Your task to perform on an android device: Check the settings for the Google Play Store app Image 0: 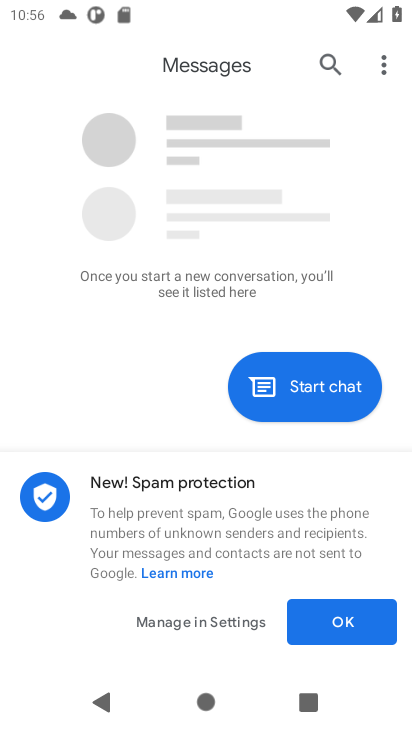
Step 0: press home button
Your task to perform on an android device: Check the settings for the Google Play Store app Image 1: 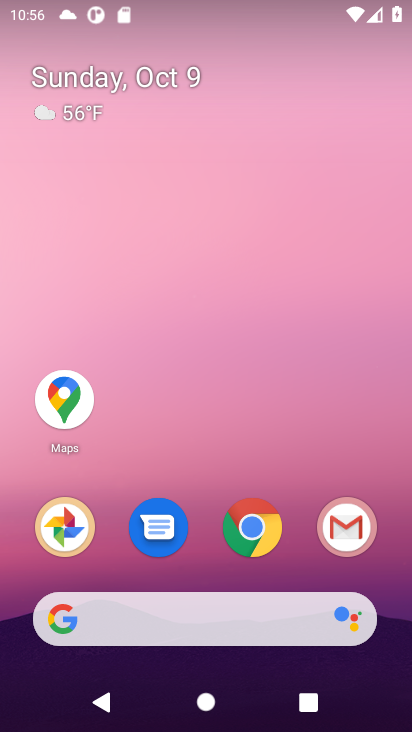
Step 1: drag from (194, 554) to (257, 13)
Your task to perform on an android device: Check the settings for the Google Play Store app Image 2: 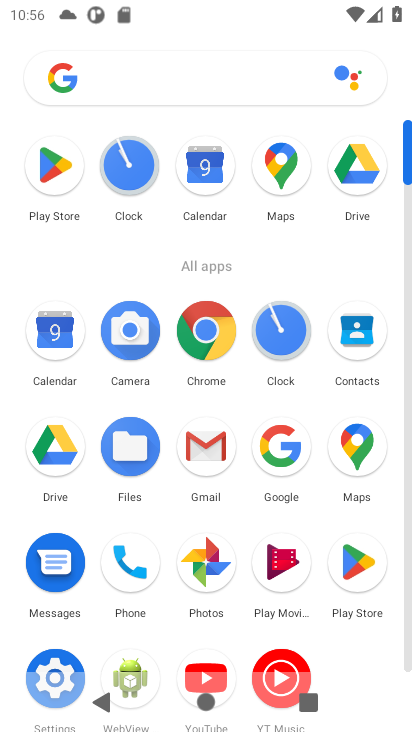
Step 2: click (59, 171)
Your task to perform on an android device: Check the settings for the Google Play Store app Image 3: 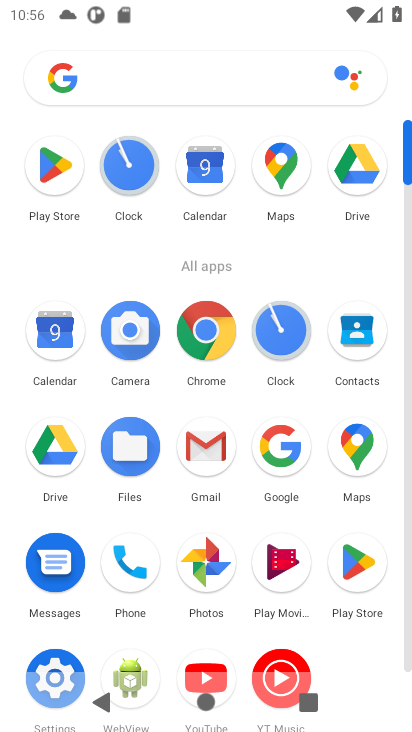
Step 3: click (51, 174)
Your task to perform on an android device: Check the settings for the Google Play Store app Image 4: 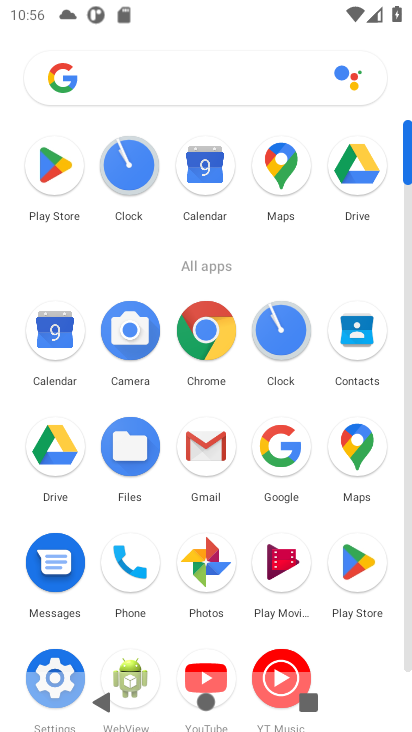
Step 4: click (51, 174)
Your task to perform on an android device: Check the settings for the Google Play Store app Image 5: 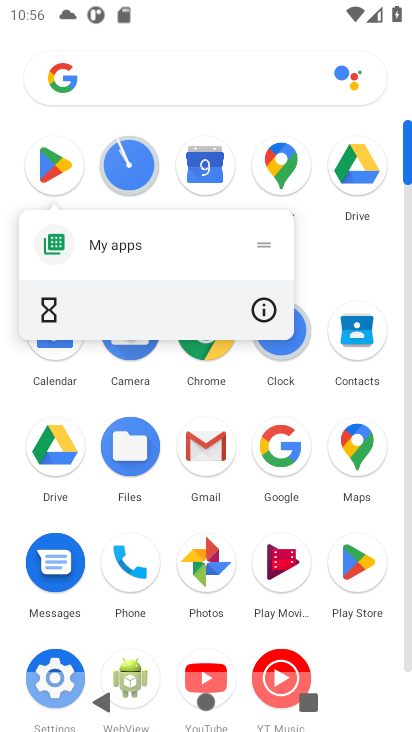
Step 5: click (260, 243)
Your task to perform on an android device: Check the settings for the Google Play Store app Image 6: 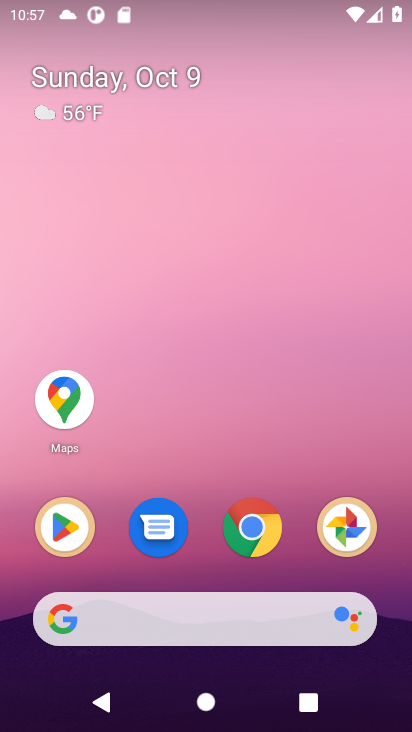
Step 6: click (64, 532)
Your task to perform on an android device: Check the settings for the Google Play Store app Image 7: 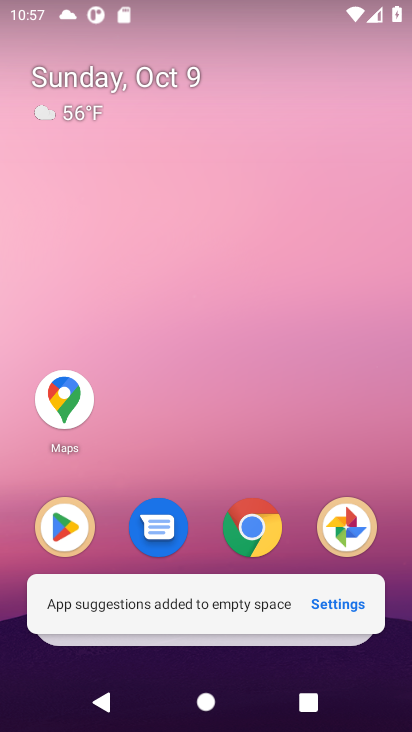
Step 7: click (357, 608)
Your task to perform on an android device: Check the settings for the Google Play Store app Image 8: 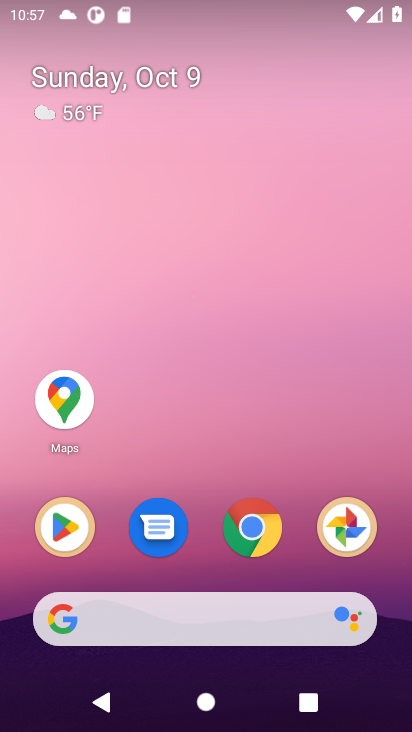
Step 8: click (71, 532)
Your task to perform on an android device: Check the settings for the Google Play Store app Image 9: 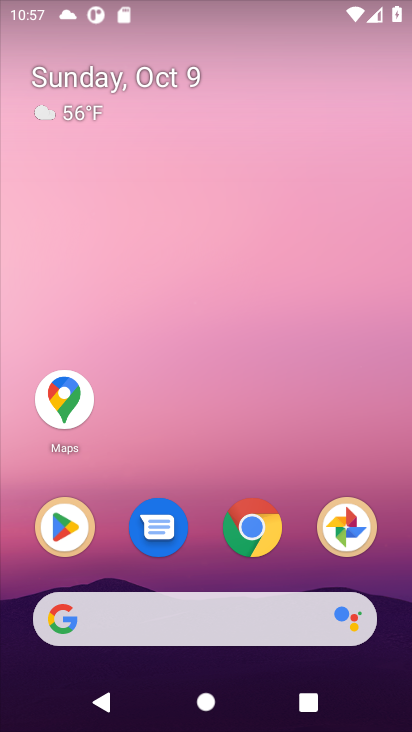
Step 9: task complete